Your task to perform on an android device: Go to Google Image 0: 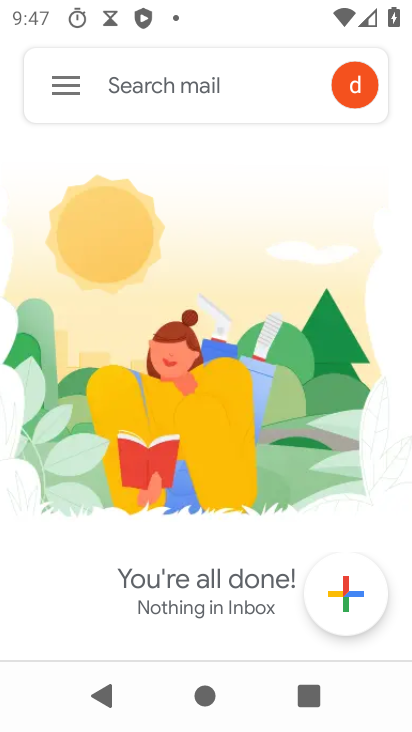
Step 0: press home button
Your task to perform on an android device: Go to Google Image 1: 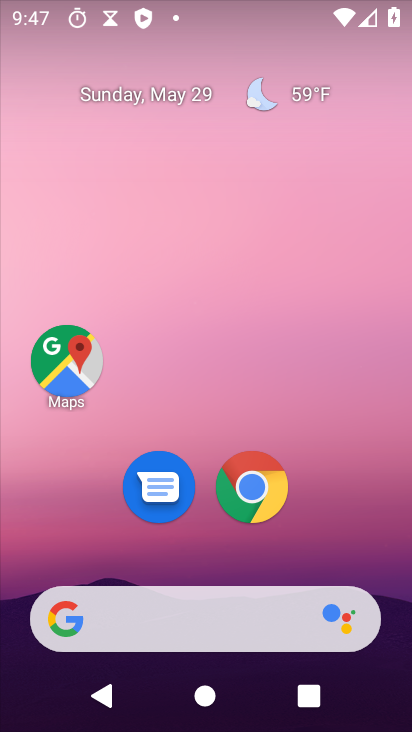
Step 1: drag from (293, 551) to (280, 81)
Your task to perform on an android device: Go to Google Image 2: 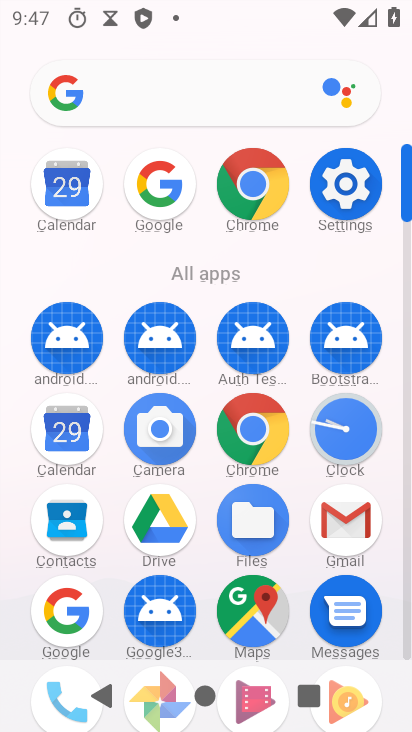
Step 2: click (154, 187)
Your task to perform on an android device: Go to Google Image 3: 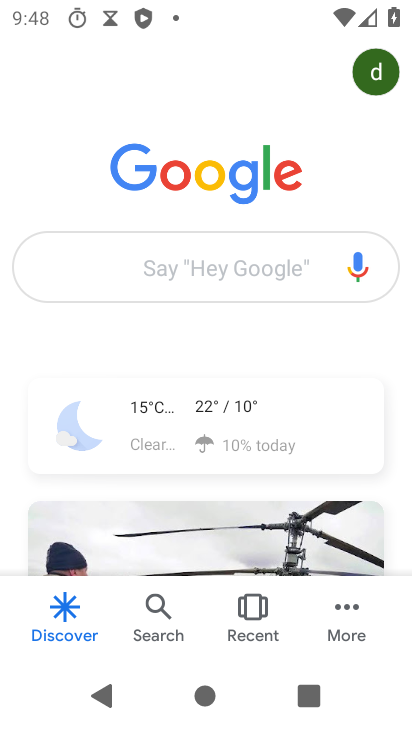
Step 3: task complete